Your task to perform on an android device: check data usage Image 0: 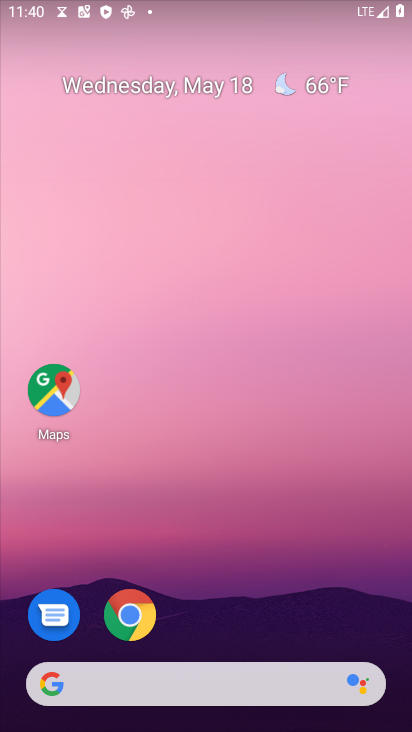
Step 0: drag from (259, 536) to (225, 54)
Your task to perform on an android device: check data usage Image 1: 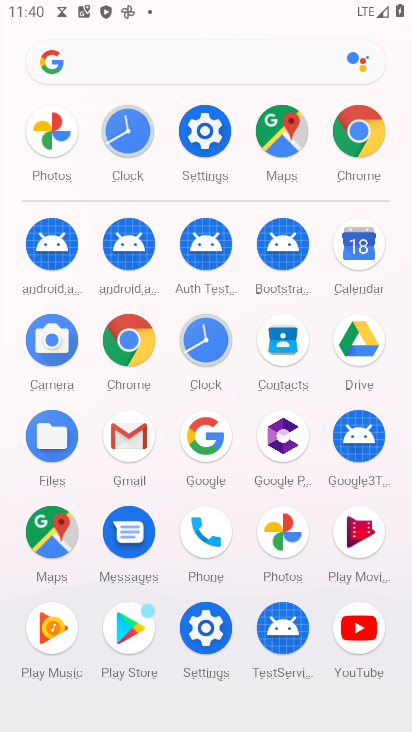
Step 1: drag from (7, 438) to (13, 208)
Your task to perform on an android device: check data usage Image 2: 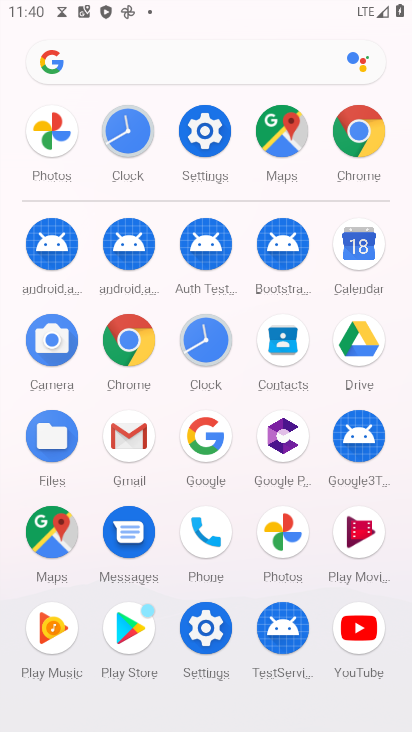
Step 2: click (202, 624)
Your task to perform on an android device: check data usage Image 3: 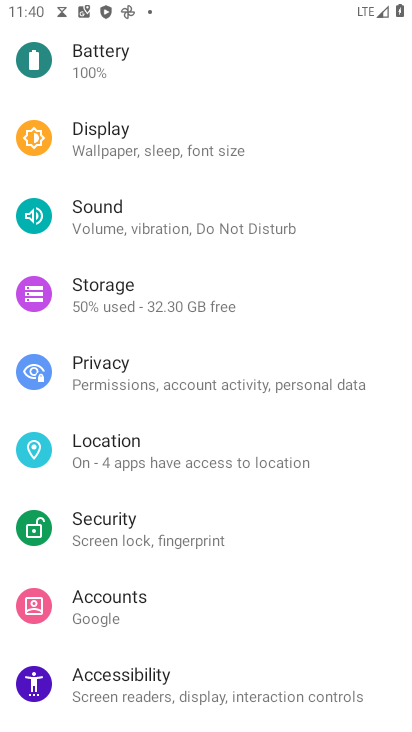
Step 3: drag from (224, 198) to (214, 589)
Your task to perform on an android device: check data usage Image 4: 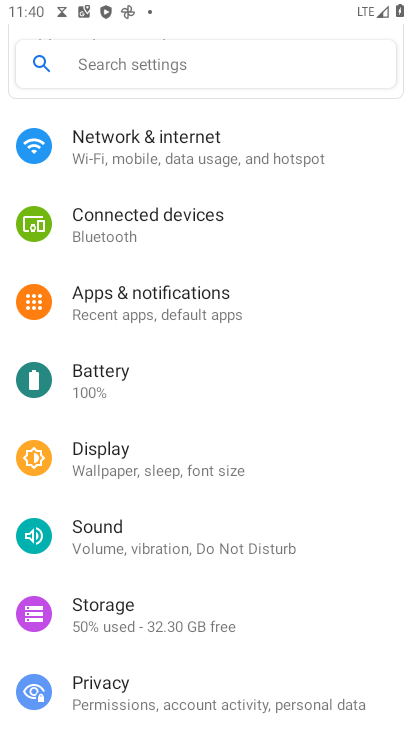
Step 4: click (183, 155)
Your task to perform on an android device: check data usage Image 5: 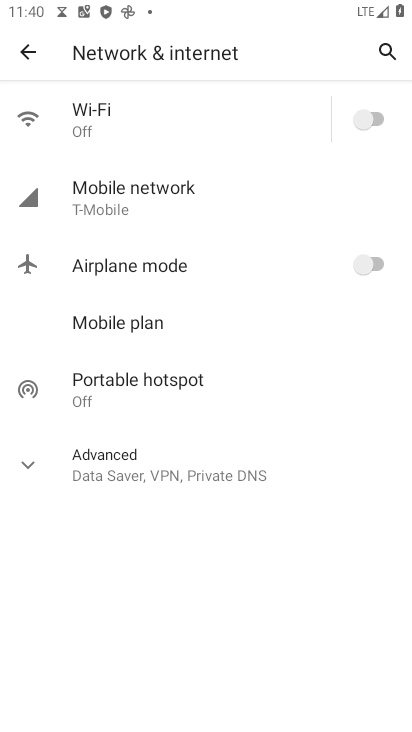
Step 5: click (138, 198)
Your task to perform on an android device: check data usage Image 6: 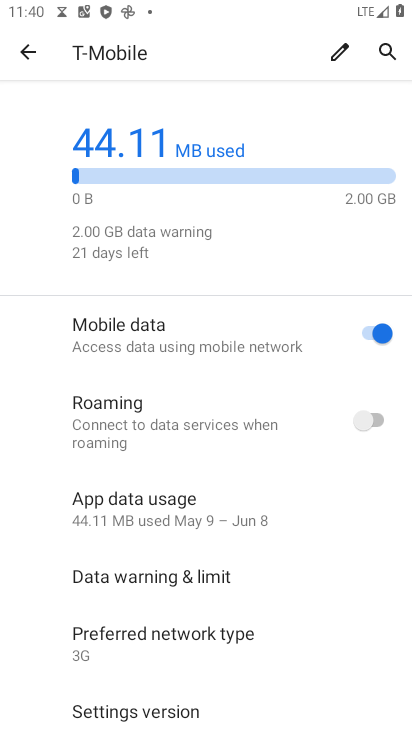
Step 6: task complete